Your task to perform on an android device: Go to settings Image 0: 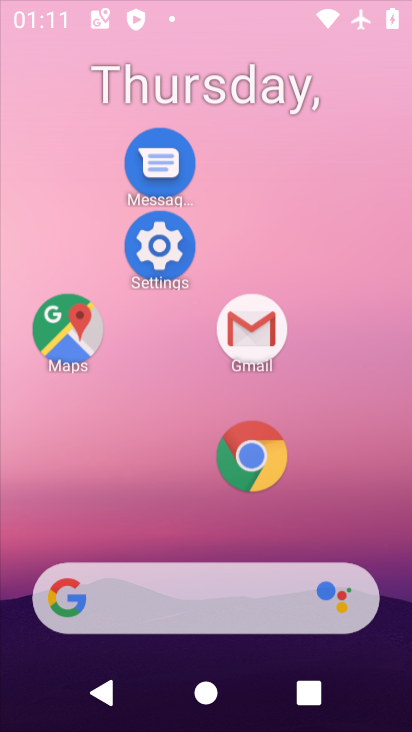
Step 0: drag from (171, 527) to (239, 146)
Your task to perform on an android device: Go to settings Image 1: 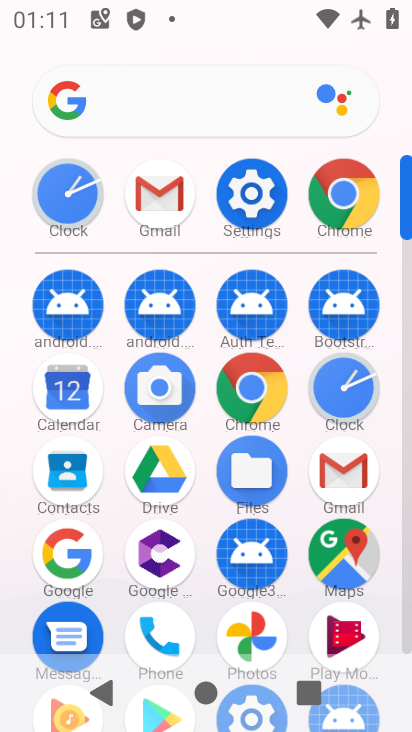
Step 1: click (255, 188)
Your task to perform on an android device: Go to settings Image 2: 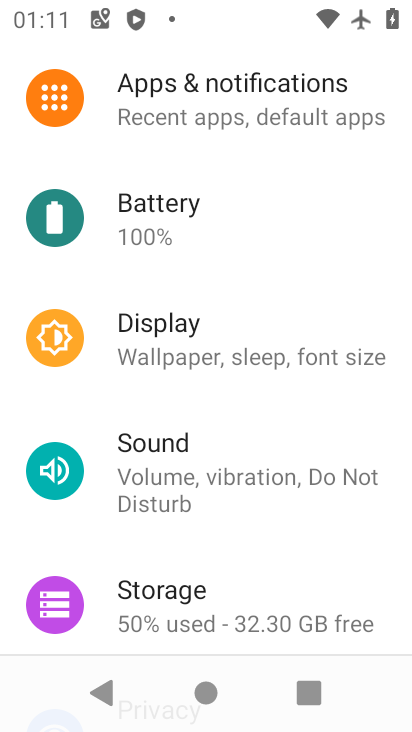
Step 2: task complete